Your task to perform on an android device: Check the settings for the Netflix app Image 0: 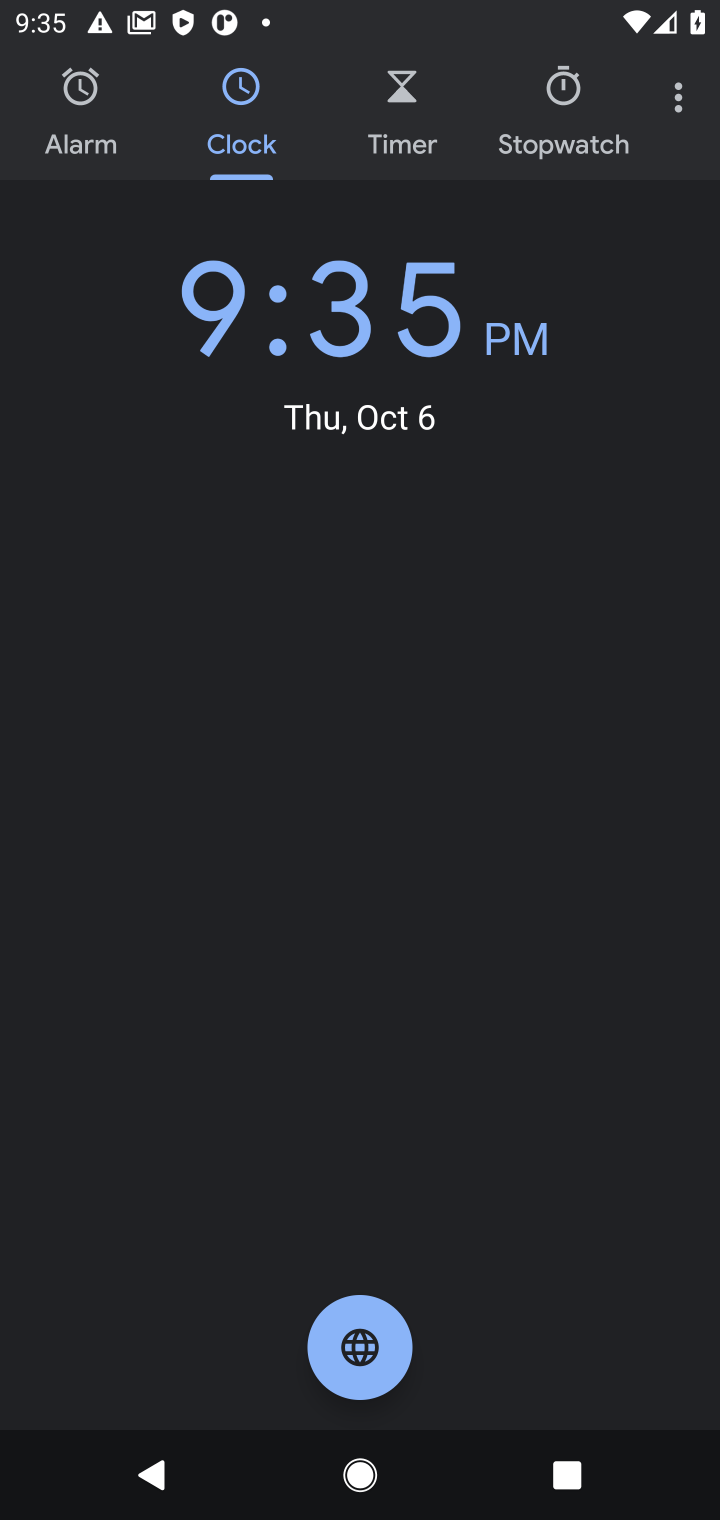
Step 0: press home button
Your task to perform on an android device: Check the settings for the Netflix app Image 1: 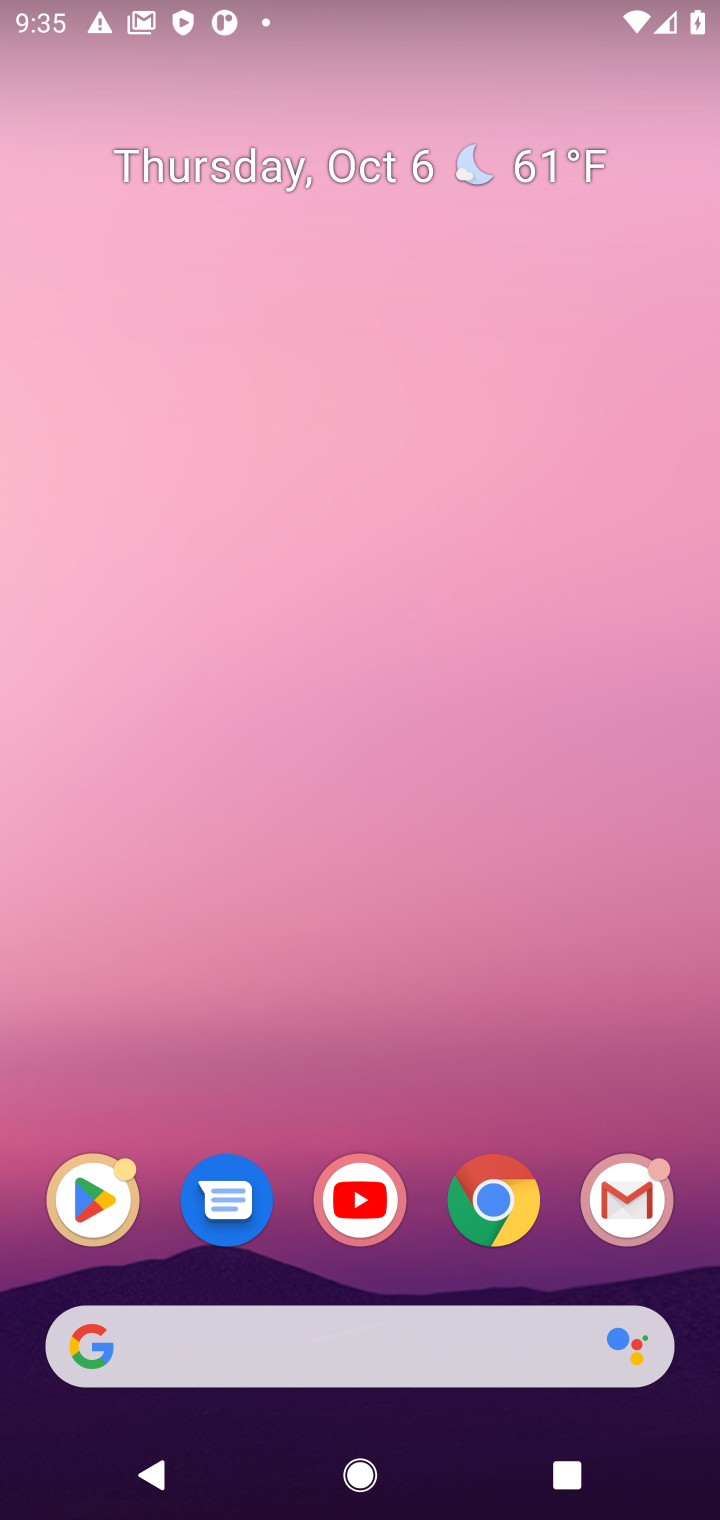
Step 1: task complete